Your task to perform on an android device: add a contact Image 0: 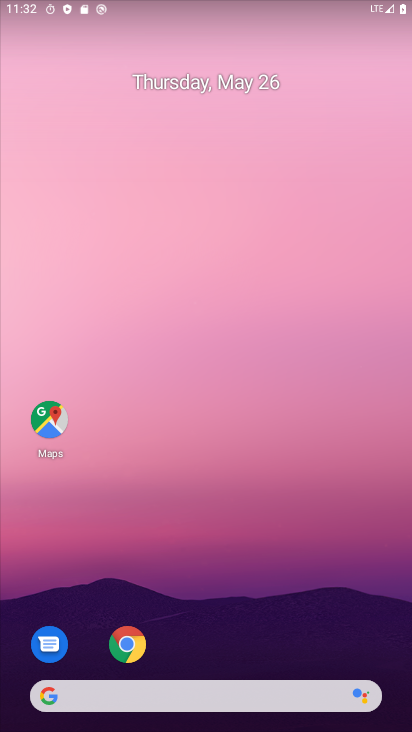
Step 0: drag from (121, 731) to (178, 87)
Your task to perform on an android device: add a contact Image 1: 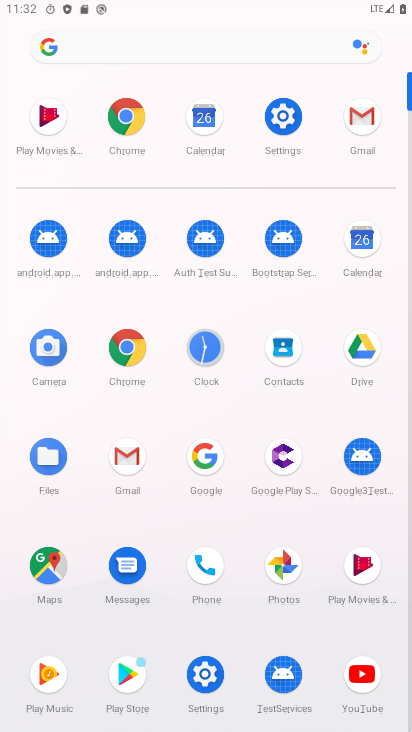
Step 1: click (282, 358)
Your task to perform on an android device: add a contact Image 2: 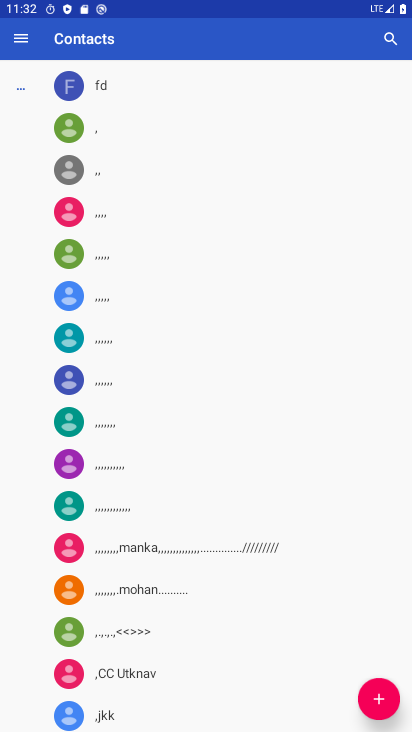
Step 2: click (387, 699)
Your task to perform on an android device: add a contact Image 3: 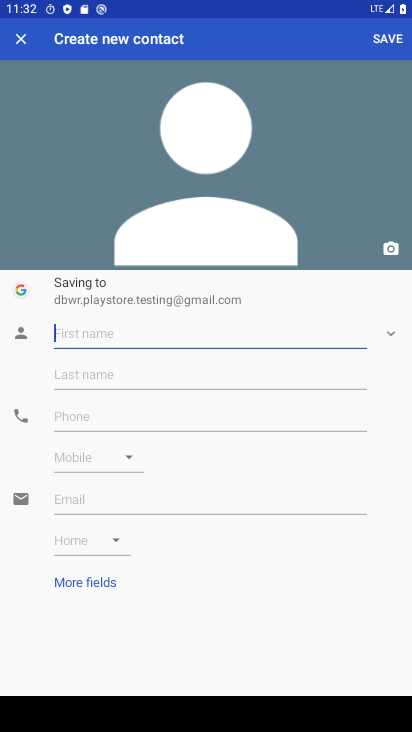
Step 3: click (187, 334)
Your task to perform on an android device: add a contact Image 4: 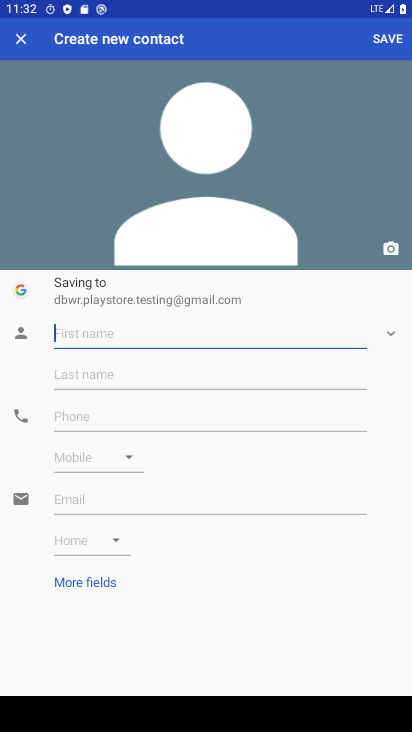
Step 4: type "ghjgjhg"
Your task to perform on an android device: add a contact Image 5: 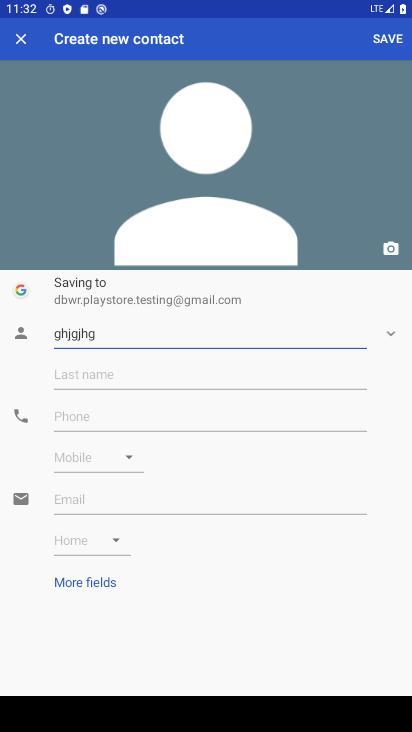
Step 5: click (126, 410)
Your task to perform on an android device: add a contact Image 6: 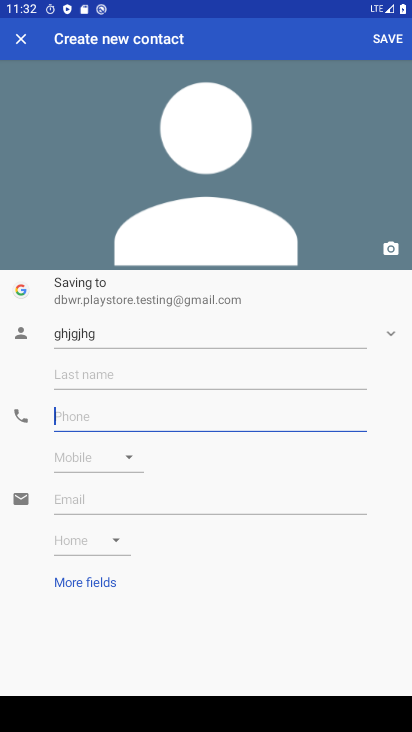
Step 6: type "865327654"
Your task to perform on an android device: add a contact Image 7: 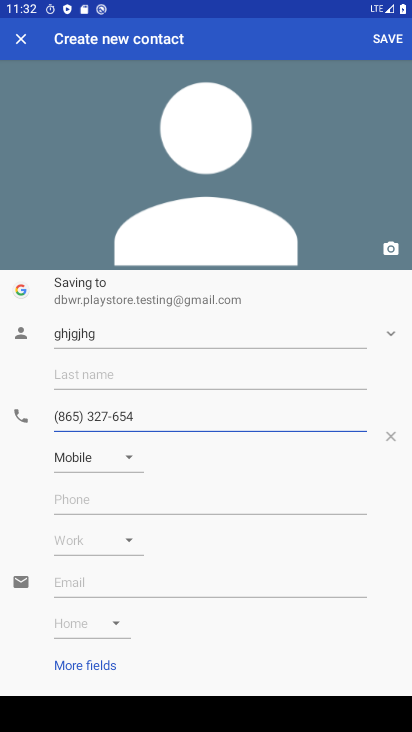
Step 7: click (380, 31)
Your task to perform on an android device: add a contact Image 8: 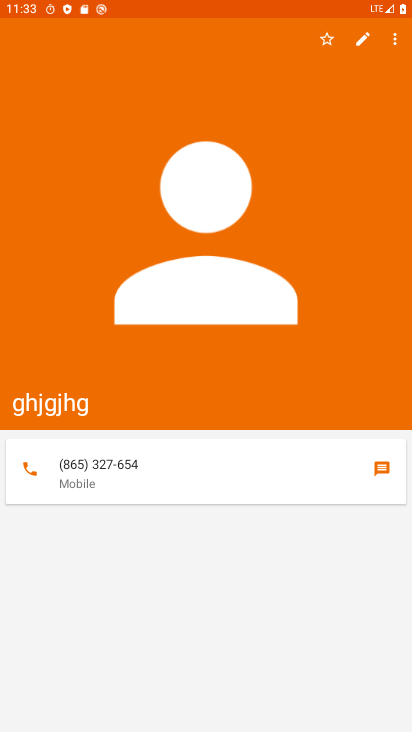
Step 8: task complete